Your task to perform on an android device: Go to Google maps Image 0: 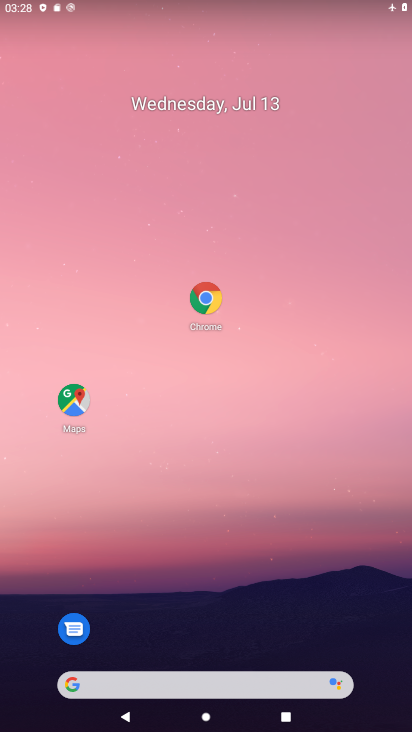
Step 0: click (65, 389)
Your task to perform on an android device: Go to Google maps Image 1: 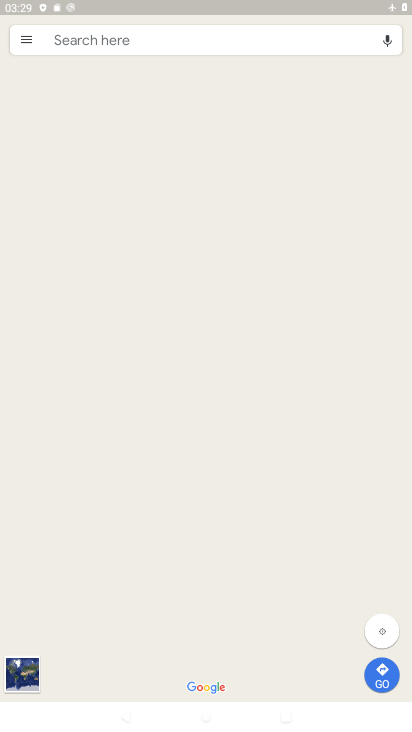
Step 1: task complete